Your task to perform on an android device: change text size in settings app Image 0: 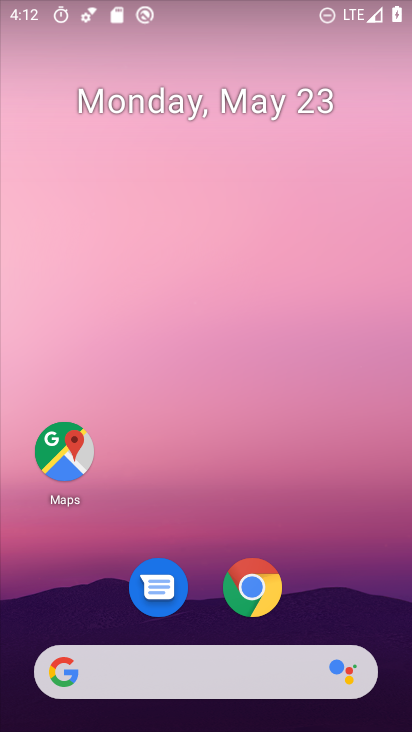
Step 0: drag from (208, 600) to (264, 0)
Your task to perform on an android device: change text size in settings app Image 1: 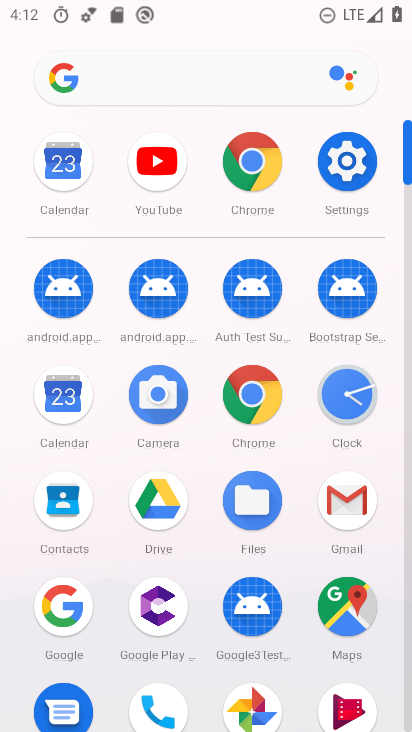
Step 1: drag from (222, 593) to (265, 220)
Your task to perform on an android device: change text size in settings app Image 2: 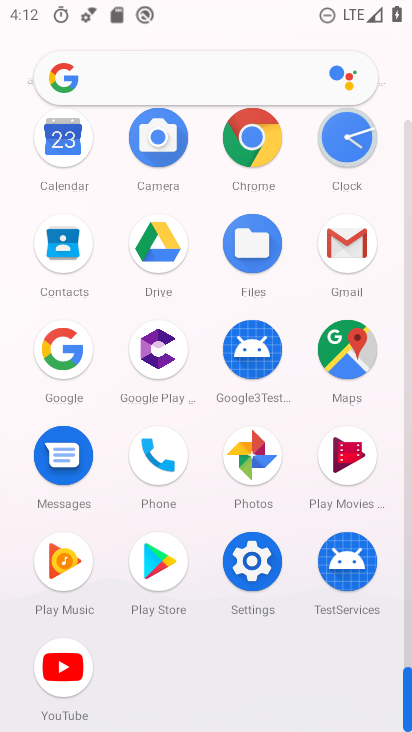
Step 2: click (257, 588)
Your task to perform on an android device: change text size in settings app Image 3: 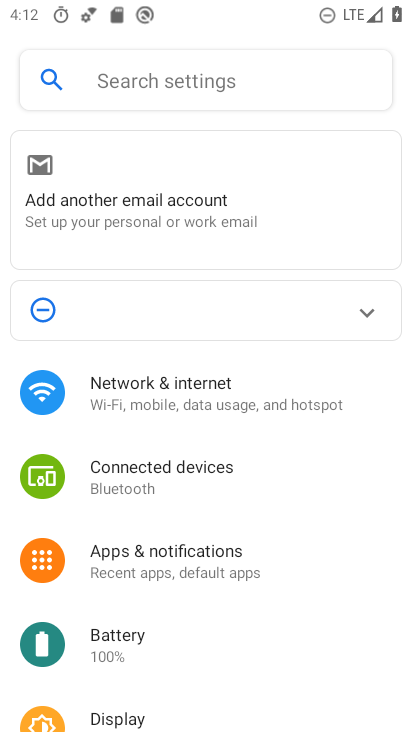
Step 3: drag from (190, 641) to (214, 415)
Your task to perform on an android device: change text size in settings app Image 4: 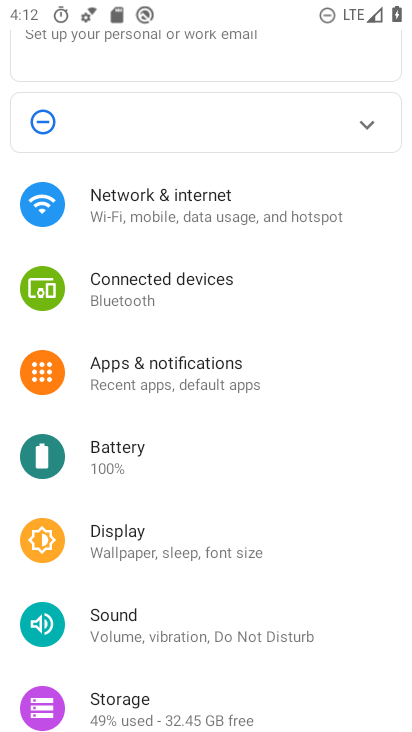
Step 4: click (115, 547)
Your task to perform on an android device: change text size in settings app Image 5: 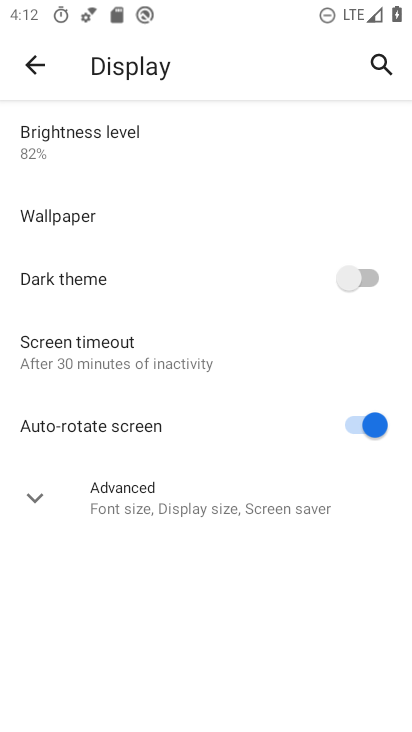
Step 5: click (109, 506)
Your task to perform on an android device: change text size in settings app Image 6: 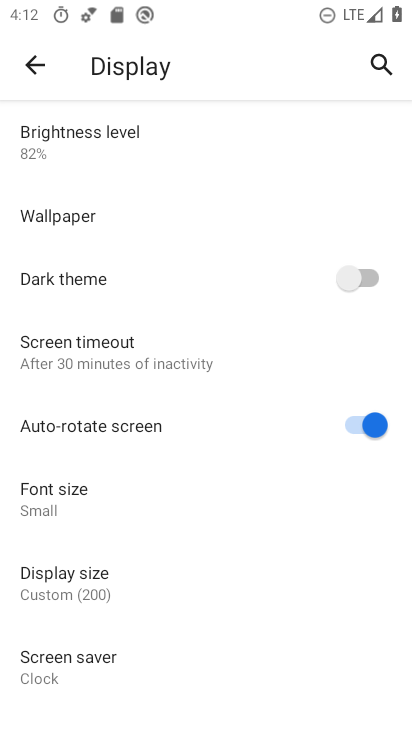
Step 6: click (97, 506)
Your task to perform on an android device: change text size in settings app Image 7: 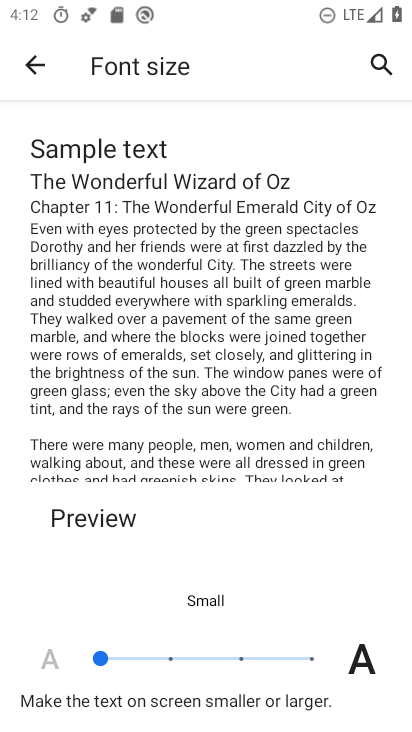
Step 7: click (168, 661)
Your task to perform on an android device: change text size in settings app Image 8: 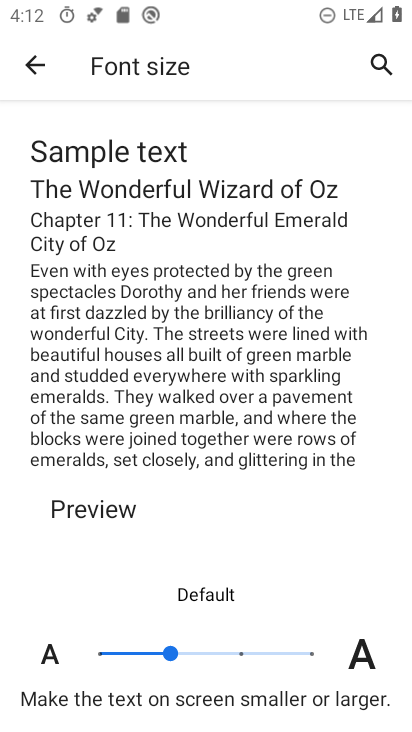
Step 8: task complete